Your task to perform on an android device: turn on showing notifications on the lock screen Image 0: 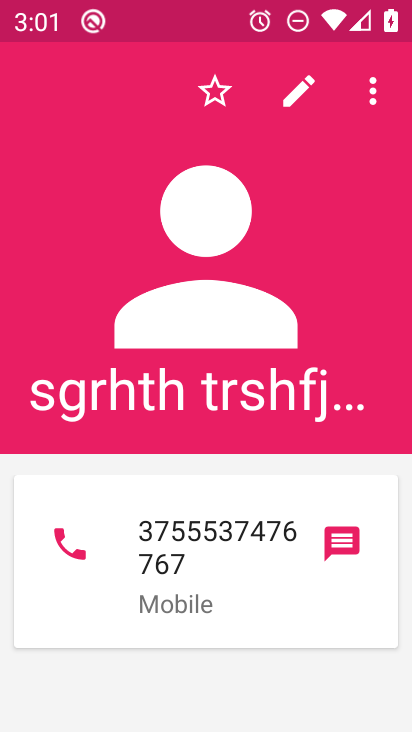
Step 0: press home button
Your task to perform on an android device: turn on showing notifications on the lock screen Image 1: 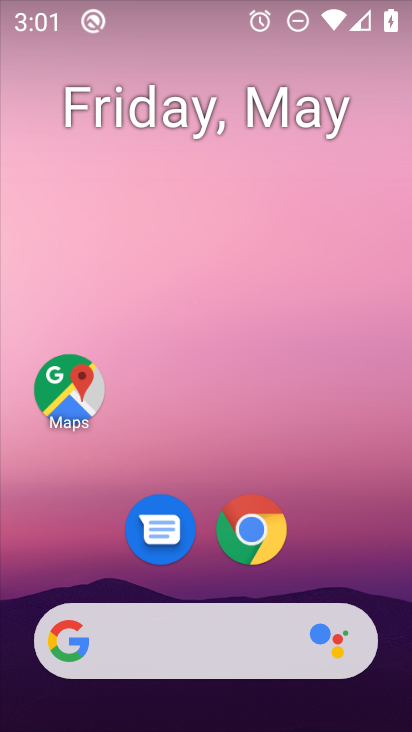
Step 1: drag from (393, 582) to (358, 263)
Your task to perform on an android device: turn on showing notifications on the lock screen Image 2: 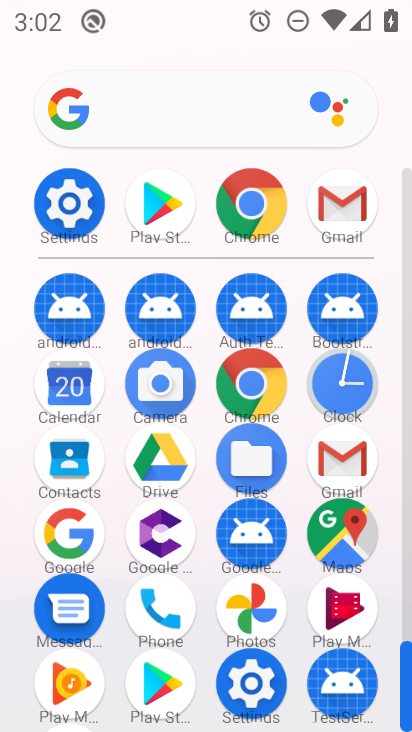
Step 2: click (245, 681)
Your task to perform on an android device: turn on showing notifications on the lock screen Image 3: 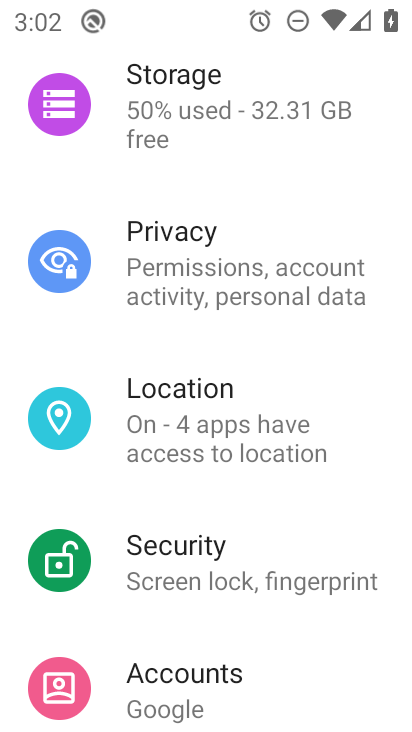
Step 3: drag from (367, 688) to (361, 304)
Your task to perform on an android device: turn on showing notifications on the lock screen Image 4: 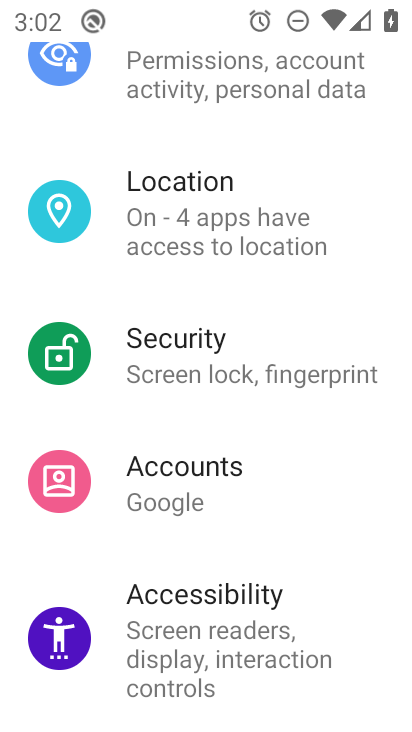
Step 4: drag from (289, 163) to (284, 499)
Your task to perform on an android device: turn on showing notifications on the lock screen Image 5: 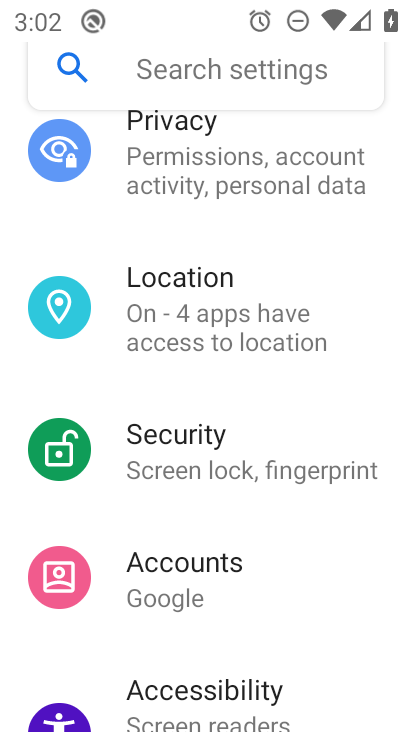
Step 5: drag from (273, 135) to (361, 731)
Your task to perform on an android device: turn on showing notifications on the lock screen Image 6: 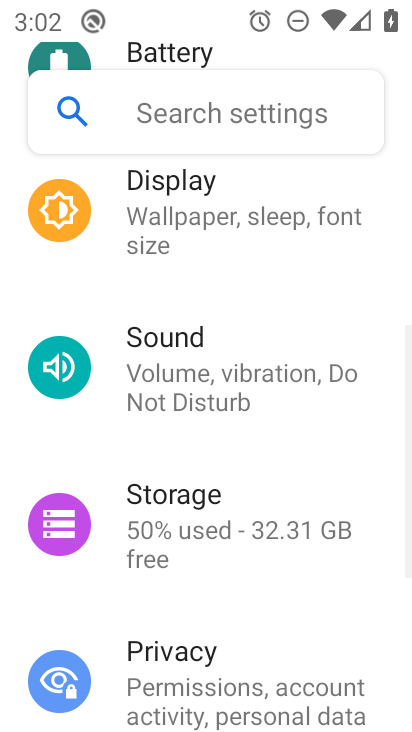
Step 6: drag from (311, 172) to (334, 672)
Your task to perform on an android device: turn on showing notifications on the lock screen Image 7: 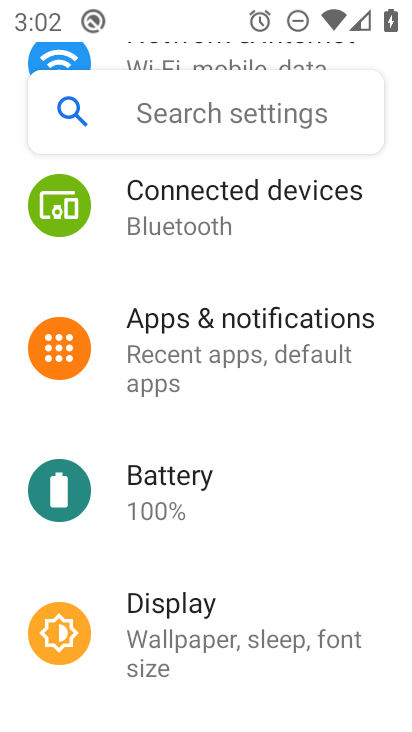
Step 7: click (185, 322)
Your task to perform on an android device: turn on showing notifications on the lock screen Image 8: 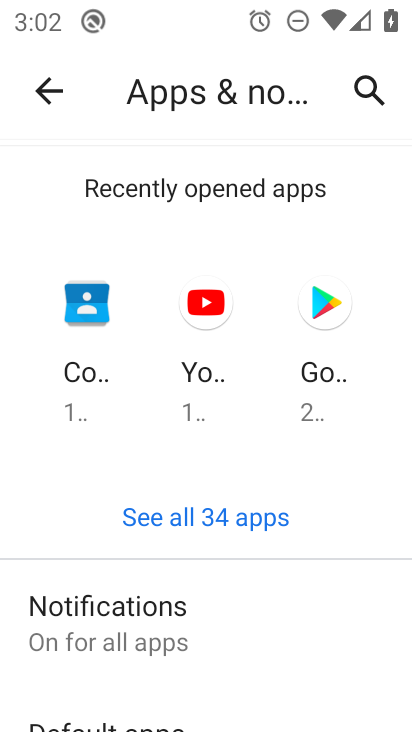
Step 8: click (115, 619)
Your task to perform on an android device: turn on showing notifications on the lock screen Image 9: 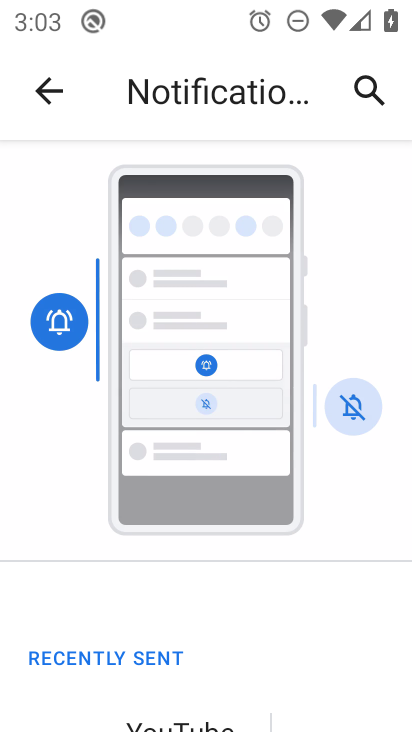
Step 9: drag from (353, 626) to (340, 292)
Your task to perform on an android device: turn on showing notifications on the lock screen Image 10: 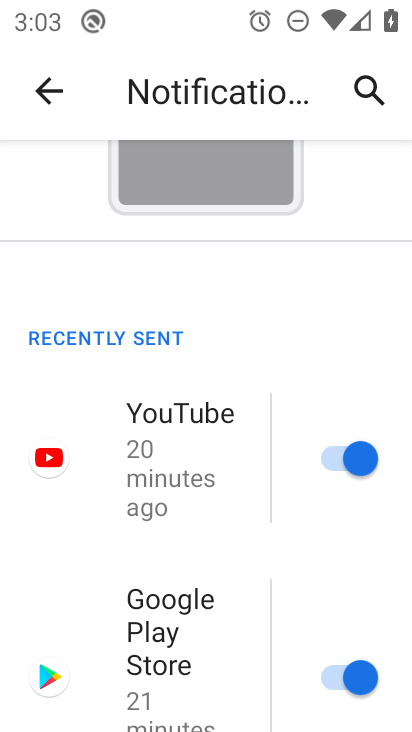
Step 10: drag from (259, 685) to (264, 375)
Your task to perform on an android device: turn on showing notifications on the lock screen Image 11: 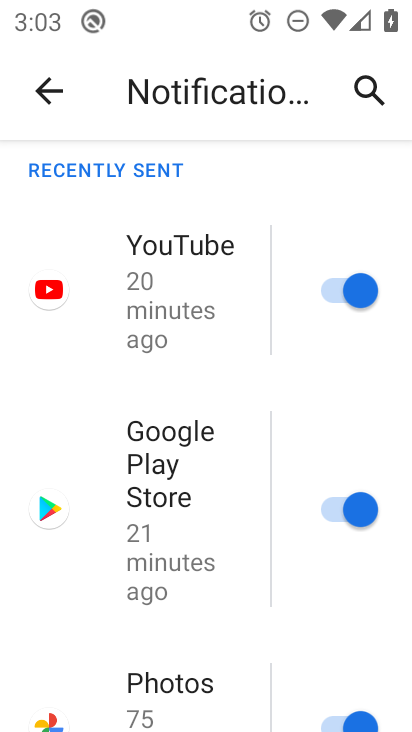
Step 11: drag from (257, 687) to (246, 360)
Your task to perform on an android device: turn on showing notifications on the lock screen Image 12: 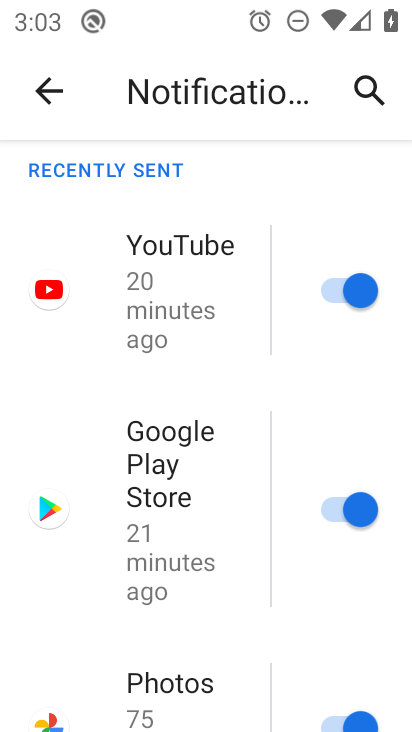
Step 12: drag from (261, 688) to (275, 375)
Your task to perform on an android device: turn on showing notifications on the lock screen Image 13: 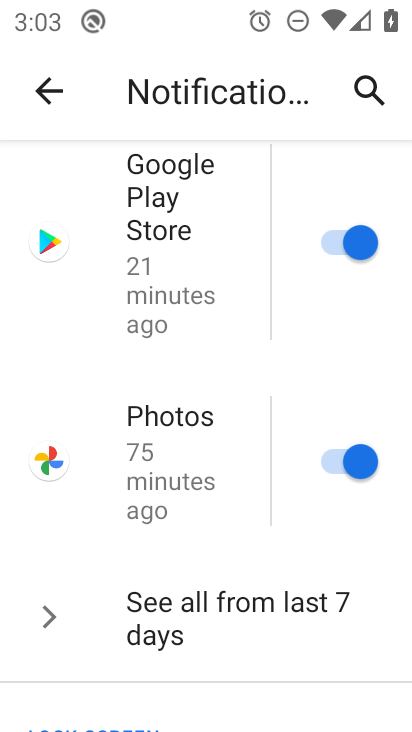
Step 13: drag from (237, 679) to (255, 410)
Your task to perform on an android device: turn on showing notifications on the lock screen Image 14: 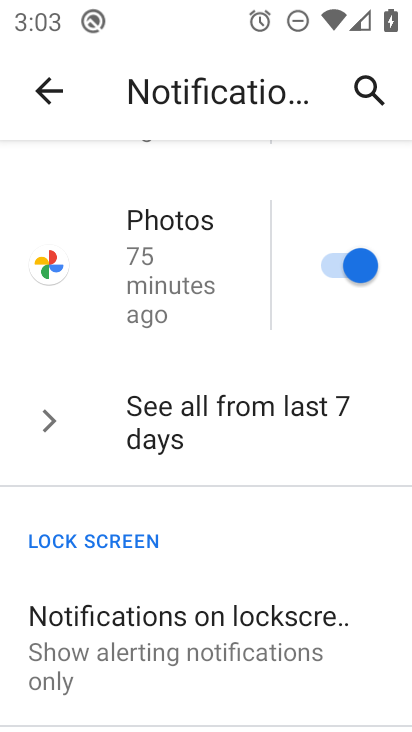
Step 14: click (137, 620)
Your task to perform on an android device: turn on showing notifications on the lock screen Image 15: 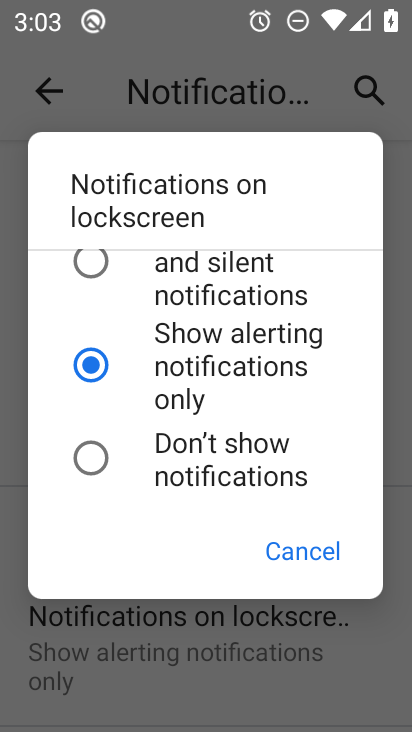
Step 15: click (97, 261)
Your task to perform on an android device: turn on showing notifications on the lock screen Image 16: 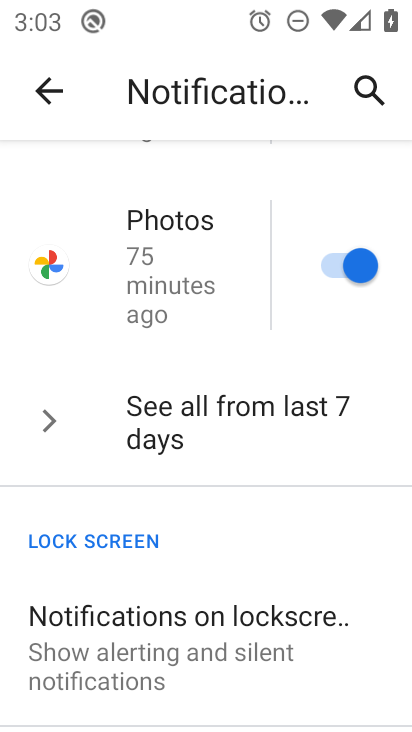
Step 16: task complete